Your task to perform on an android device: What is the recent news? Image 0: 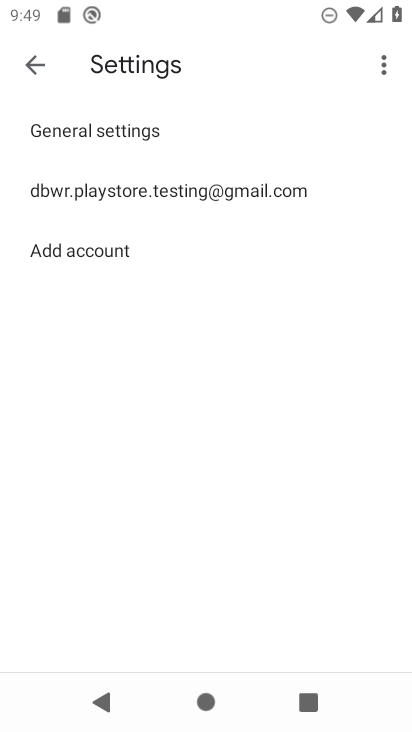
Step 0: press home button
Your task to perform on an android device: What is the recent news? Image 1: 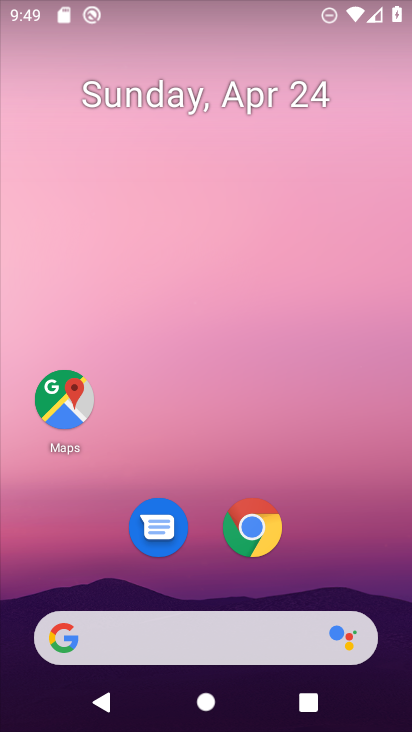
Step 1: drag from (385, 606) to (324, 143)
Your task to perform on an android device: What is the recent news? Image 2: 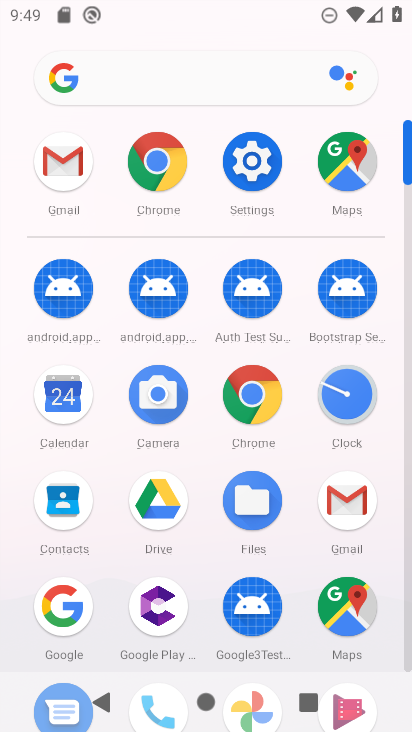
Step 2: click (260, 399)
Your task to perform on an android device: What is the recent news? Image 3: 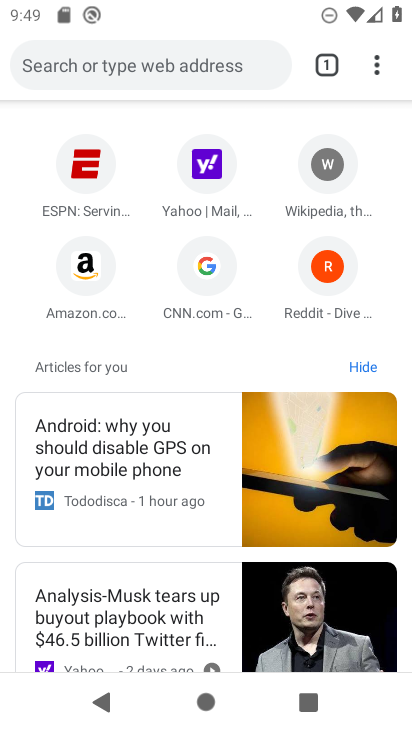
Step 3: click (149, 453)
Your task to perform on an android device: What is the recent news? Image 4: 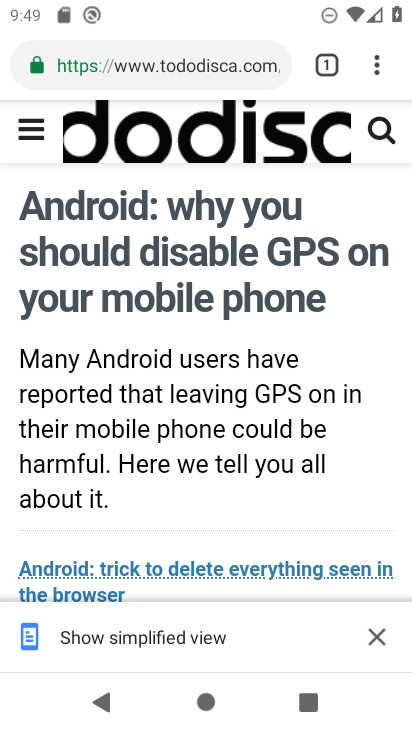
Step 4: task complete